Your task to perform on an android device: Open Chrome and go to settings Image 0: 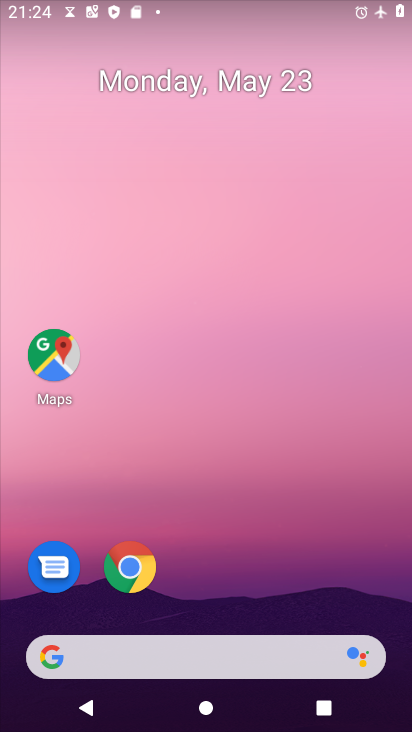
Step 0: click (125, 561)
Your task to perform on an android device: Open Chrome and go to settings Image 1: 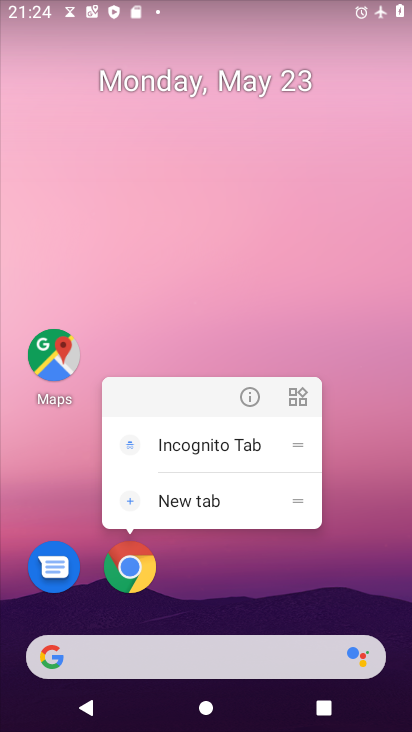
Step 1: click (127, 566)
Your task to perform on an android device: Open Chrome and go to settings Image 2: 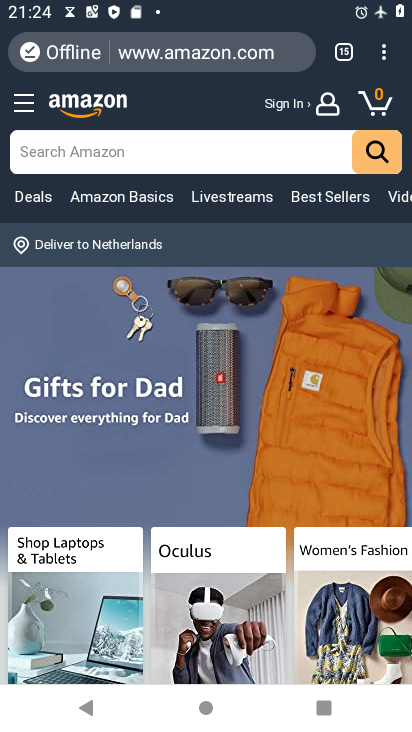
Step 2: click (381, 41)
Your task to perform on an android device: Open Chrome and go to settings Image 3: 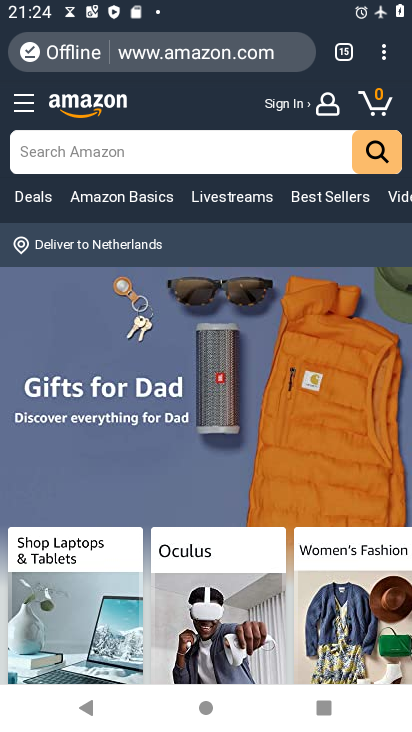
Step 3: click (387, 51)
Your task to perform on an android device: Open Chrome and go to settings Image 4: 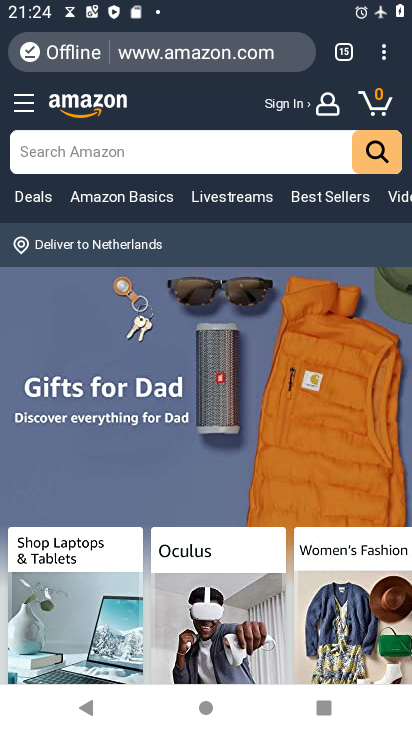
Step 4: click (384, 53)
Your task to perform on an android device: Open Chrome and go to settings Image 5: 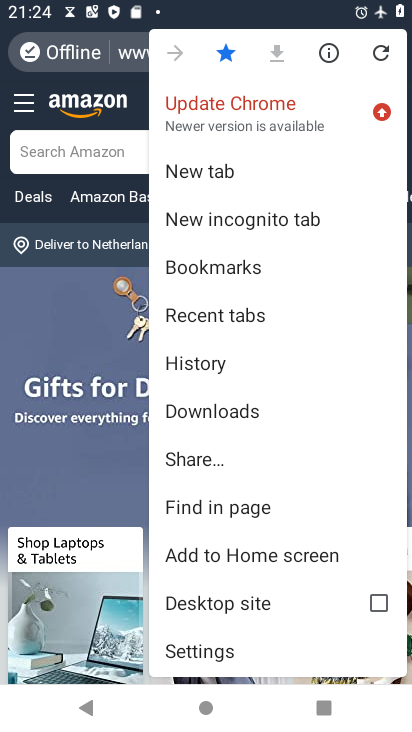
Step 5: click (222, 652)
Your task to perform on an android device: Open Chrome and go to settings Image 6: 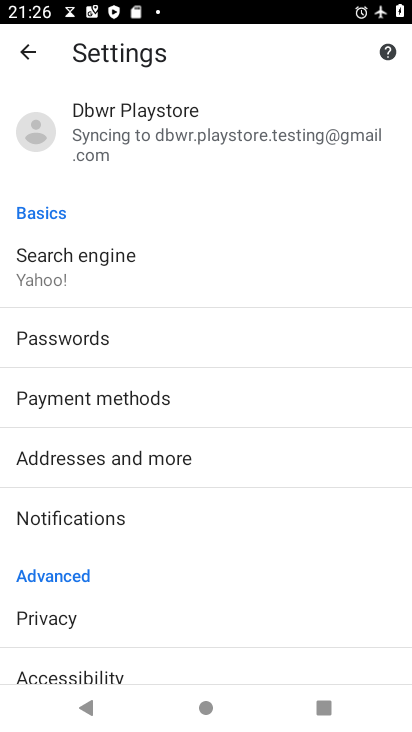
Step 6: task complete